Your task to perform on an android device: toggle location history Image 0: 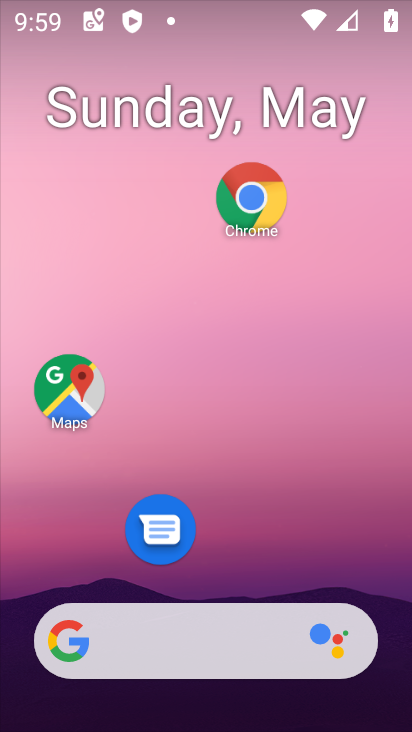
Step 0: drag from (262, 567) to (335, 156)
Your task to perform on an android device: toggle location history Image 1: 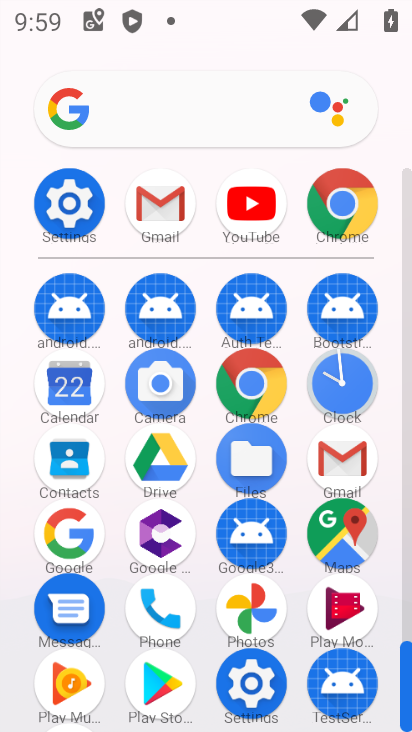
Step 1: click (66, 198)
Your task to perform on an android device: toggle location history Image 2: 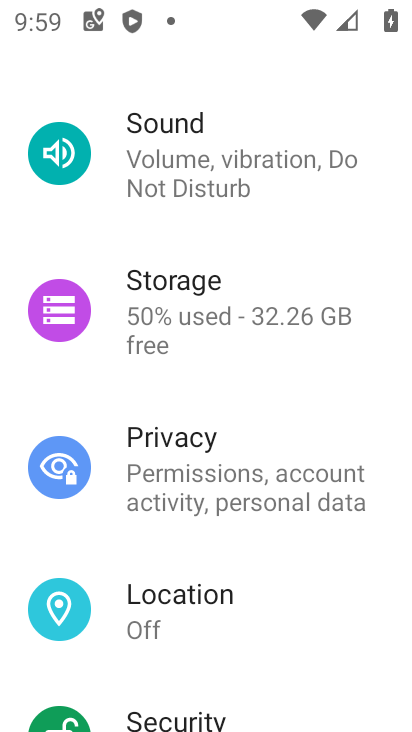
Step 2: click (157, 587)
Your task to perform on an android device: toggle location history Image 3: 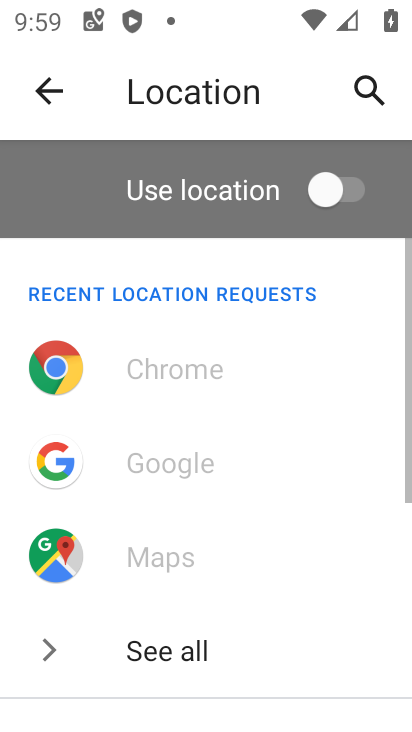
Step 3: drag from (180, 637) to (299, 227)
Your task to perform on an android device: toggle location history Image 4: 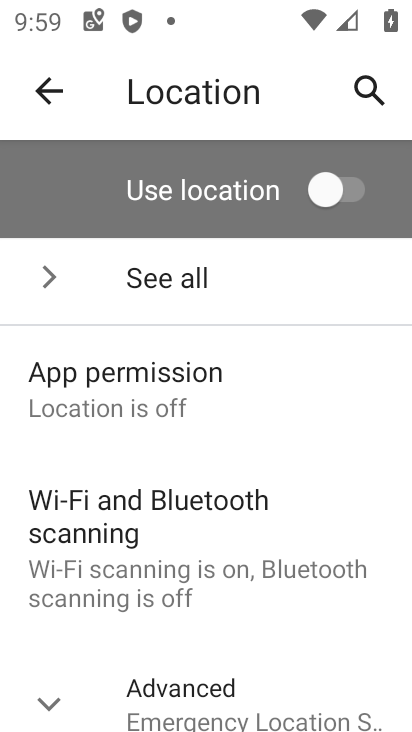
Step 4: drag from (225, 610) to (244, 329)
Your task to perform on an android device: toggle location history Image 5: 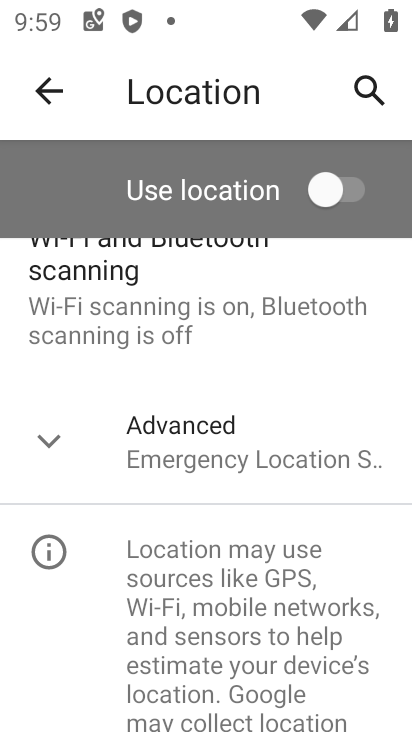
Step 5: click (193, 458)
Your task to perform on an android device: toggle location history Image 6: 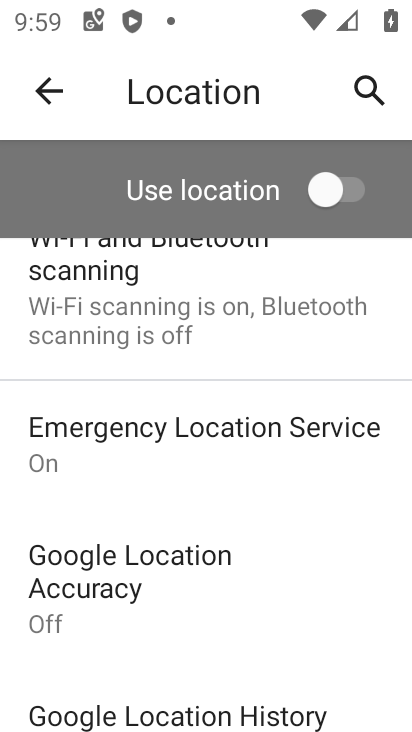
Step 6: click (140, 713)
Your task to perform on an android device: toggle location history Image 7: 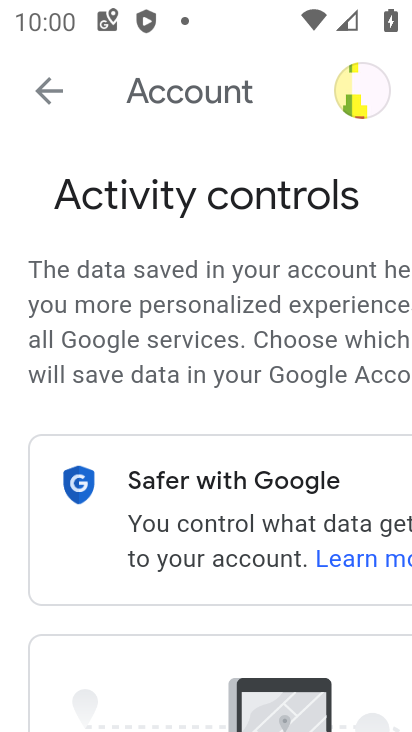
Step 7: drag from (120, 689) to (192, 262)
Your task to perform on an android device: toggle location history Image 8: 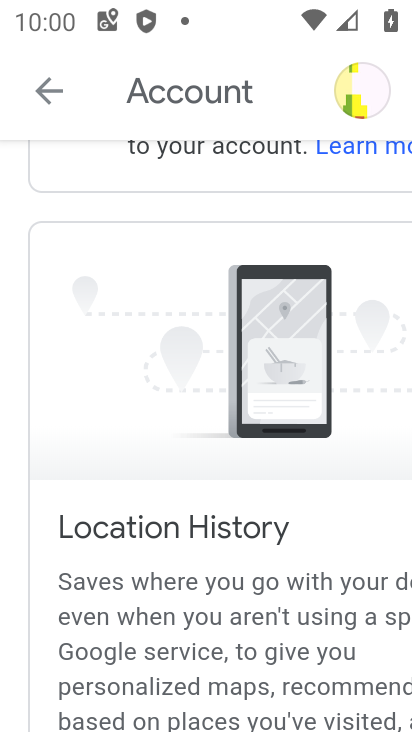
Step 8: drag from (189, 615) to (285, 184)
Your task to perform on an android device: toggle location history Image 9: 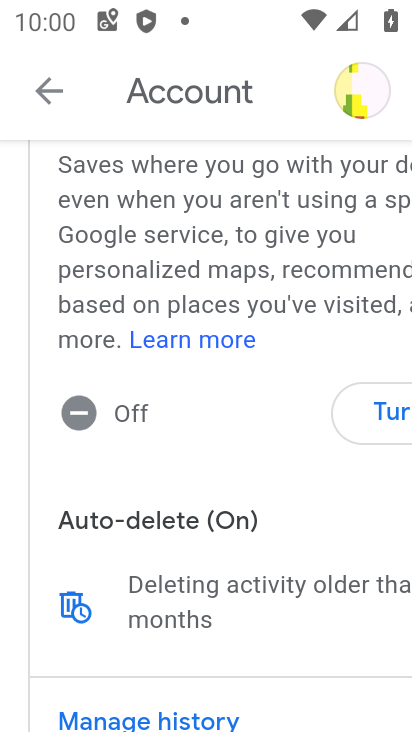
Step 9: click (389, 398)
Your task to perform on an android device: toggle location history Image 10: 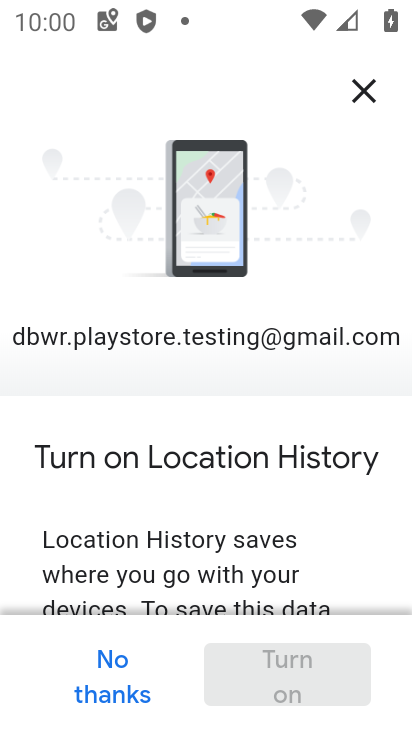
Step 10: drag from (309, 584) to (314, 215)
Your task to perform on an android device: toggle location history Image 11: 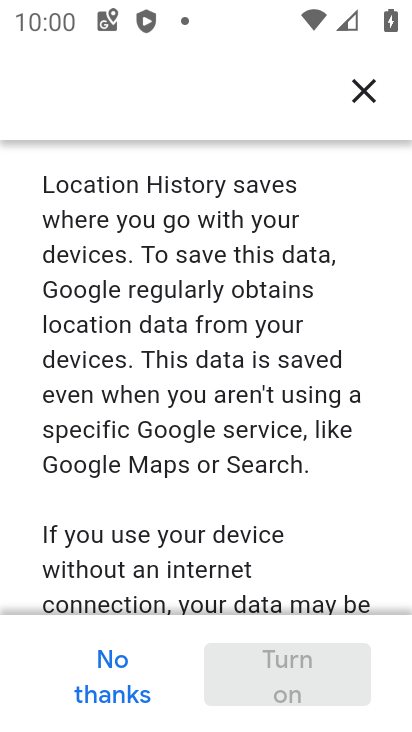
Step 11: drag from (247, 552) to (290, 259)
Your task to perform on an android device: toggle location history Image 12: 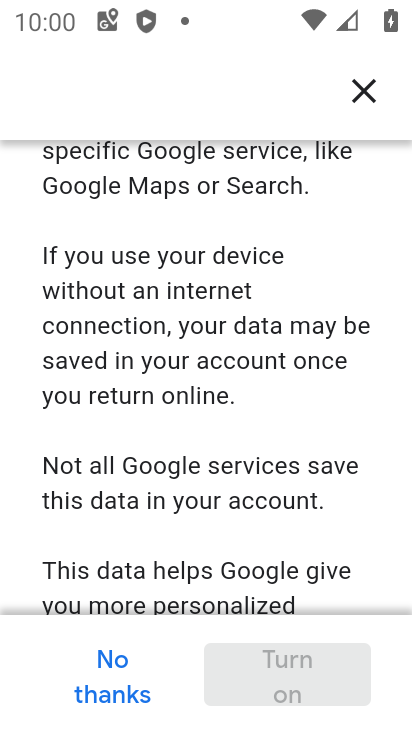
Step 12: drag from (278, 559) to (308, 254)
Your task to perform on an android device: toggle location history Image 13: 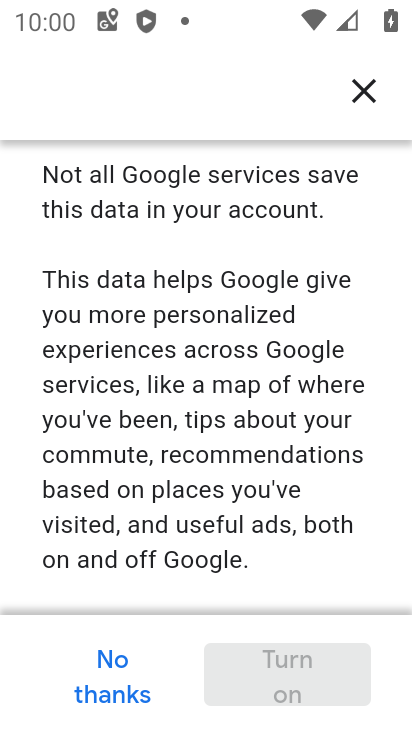
Step 13: drag from (249, 552) to (262, 260)
Your task to perform on an android device: toggle location history Image 14: 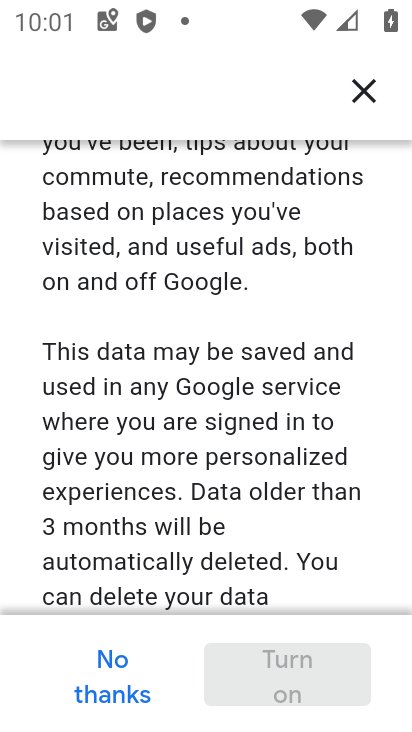
Step 14: drag from (228, 267) to (249, 227)
Your task to perform on an android device: toggle location history Image 15: 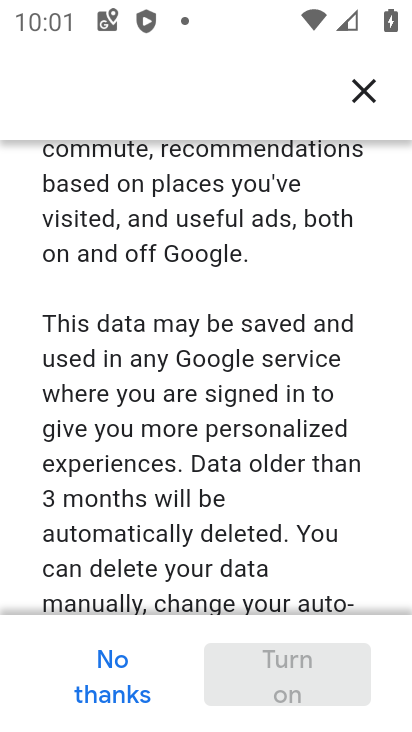
Step 15: drag from (237, 554) to (263, 229)
Your task to perform on an android device: toggle location history Image 16: 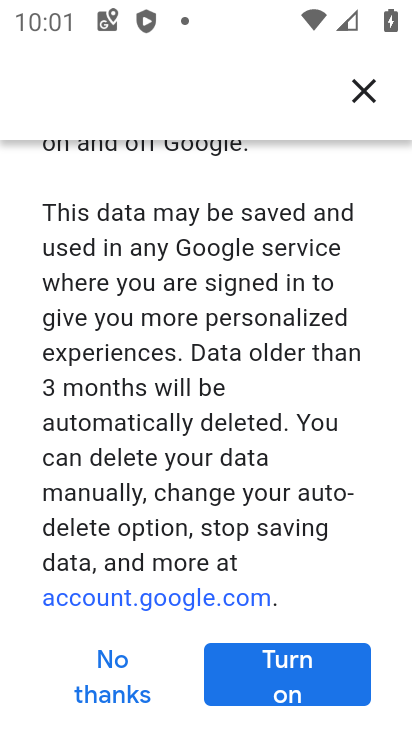
Step 16: drag from (241, 537) to (263, 284)
Your task to perform on an android device: toggle location history Image 17: 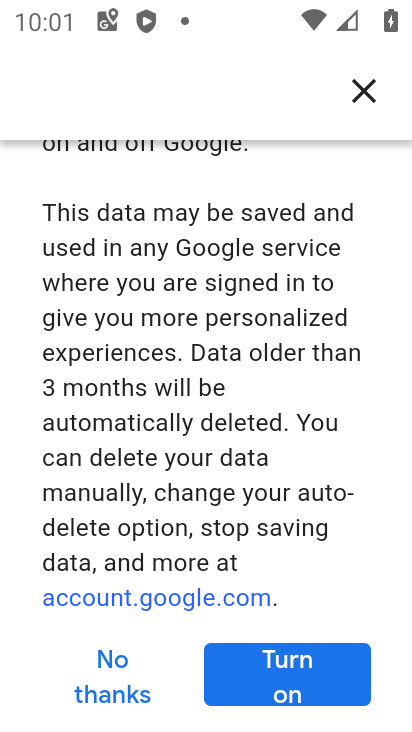
Step 17: click (338, 652)
Your task to perform on an android device: toggle location history Image 18: 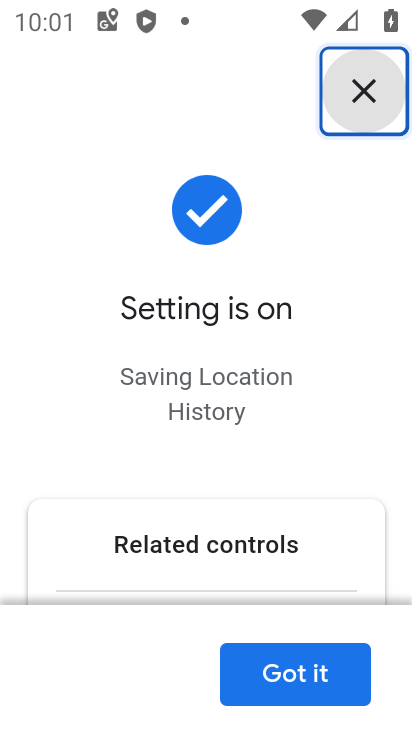
Step 18: click (311, 657)
Your task to perform on an android device: toggle location history Image 19: 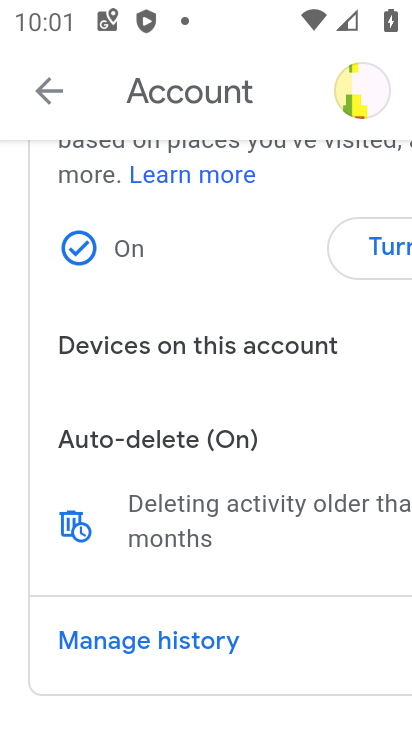
Step 19: task complete